Your task to perform on an android device: turn pop-ups on in chrome Image 0: 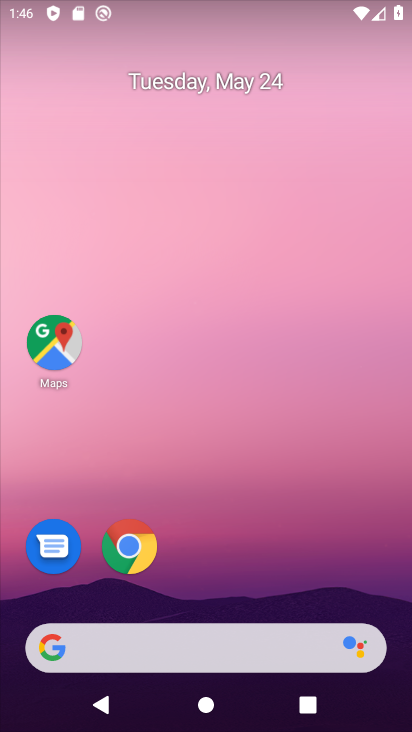
Step 0: click (138, 552)
Your task to perform on an android device: turn pop-ups on in chrome Image 1: 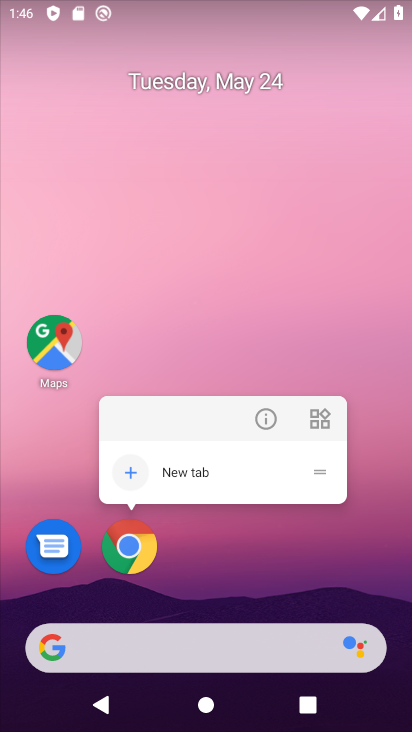
Step 1: click (119, 557)
Your task to perform on an android device: turn pop-ups on in chrome Image 2: 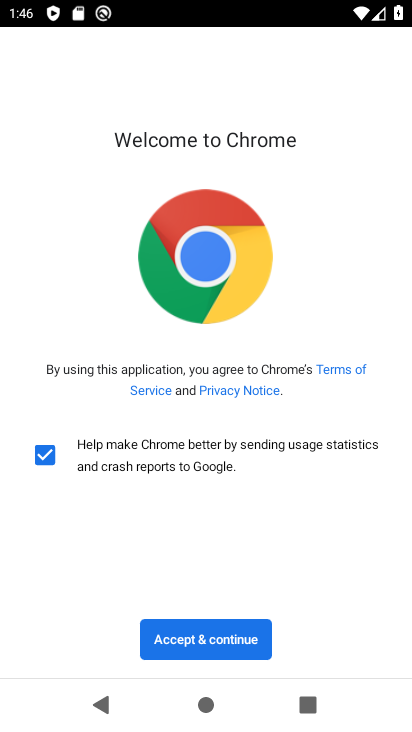
Step 2: click (248, 639)
Your task to perform on an android device: turn pop-ups on in chrome Image 3: 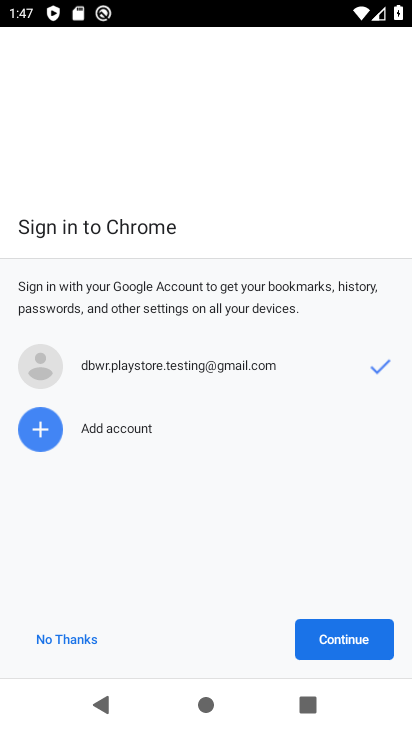
Step 3: click (333, 643)
Your task to perform on an android device: turn pop-ups on in chrome Image 4: 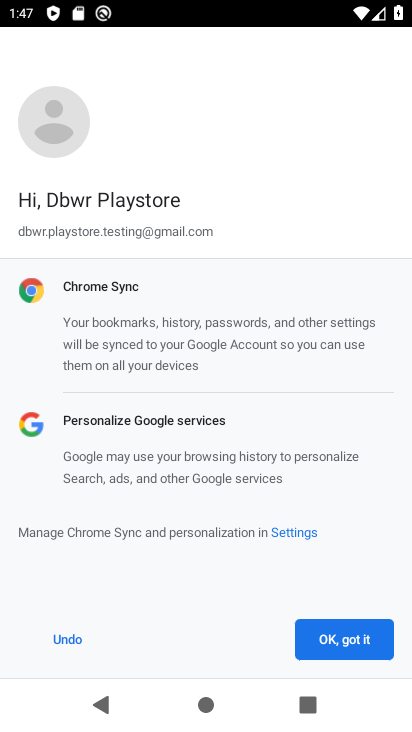
Step 4: click (361, 645)
Your task to perform on an android device: turn pop-ups on in chrome Image 5: 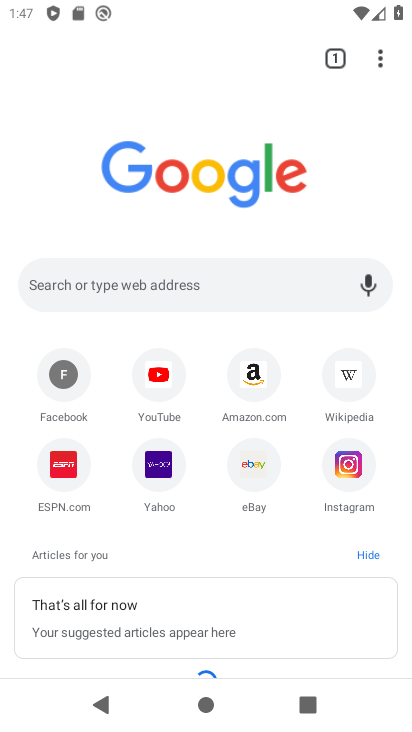
Step 5: drag from (386, 75) to (236, 488)
Your task to perform on an android device: turn pop-ups on in chrome Image 6: 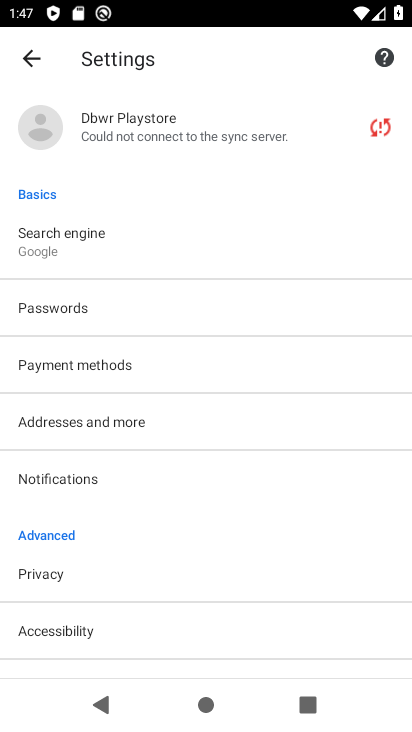
Step 6: drag from (146, 582) to (249, 211)
Your task to perform on an android device: turn pop-ups on in chrome Image 7: 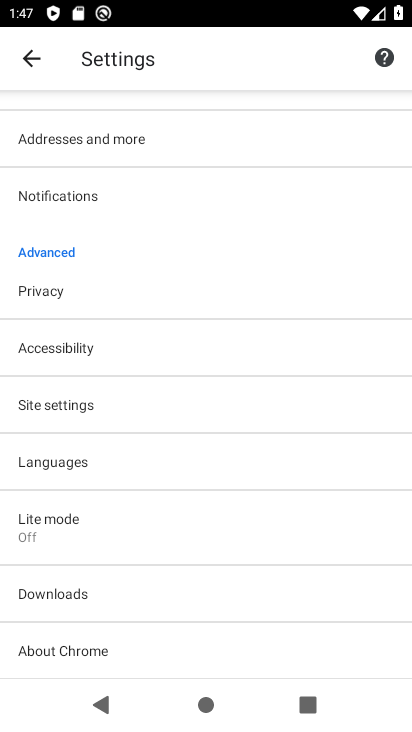
Step 7: click (118, 413)
Your task to perform on an android device: turn pop-ups on in chrome Image 8: 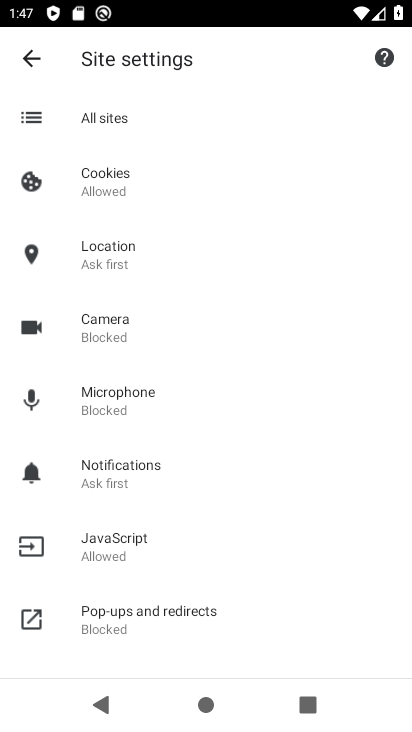
Step 8: click (194, 620)
Your task to perform on an android device: turn pop-ups on in chrome Image 9: 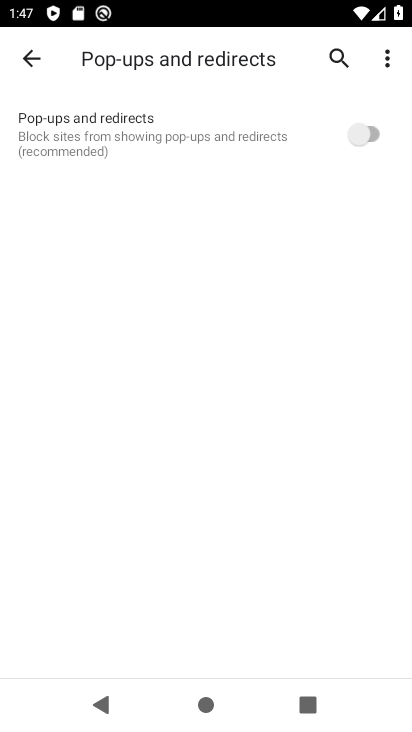
Step 9: click (389, 125)
Your task to perform on an android device: turn pop-ups on in chrome Image 10: 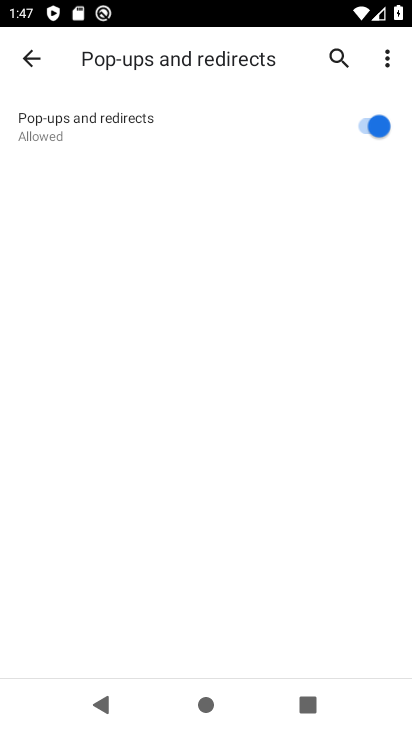
Step 10: task complete